Your task to perform on an android device: Open network settings Image 0: 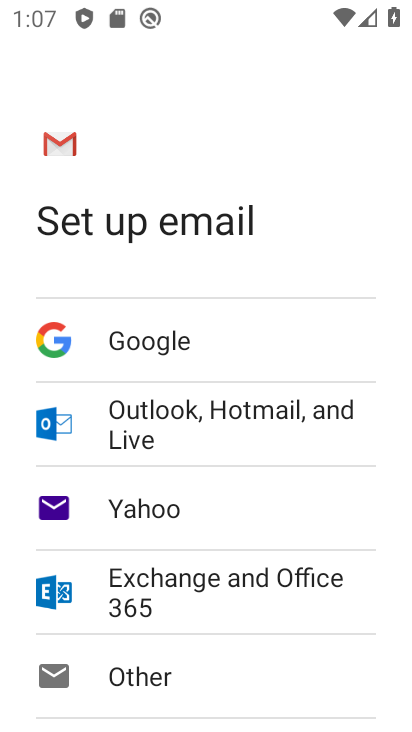
Step 0: press home button
Your task to perform on an android device: Open network settings Image 1: 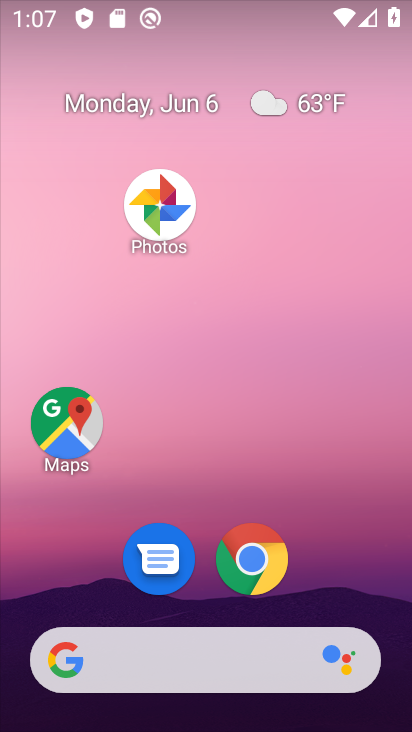
Step 1: drag from (341, 562) to (353, 127)
Your task to perform on an android device: Open network settings Image 2: 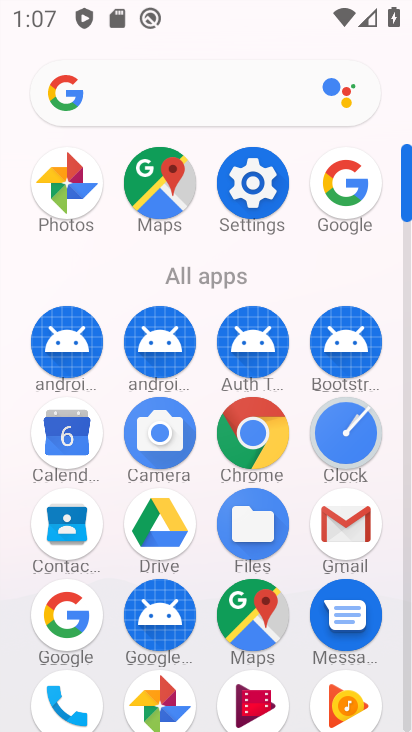
Step 2: drag from (261, 187) to (135, 209)
Your task to perform on an android device: Open network settings Image 3: 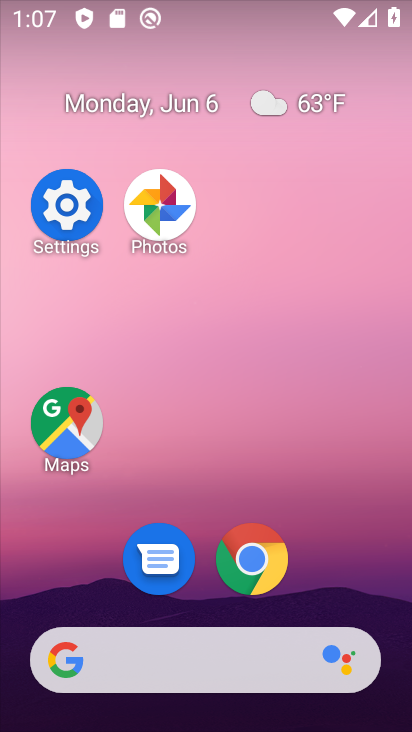
Step 3: click (74, 203)
Your task to perform on an android device: Open network settings Image 4: 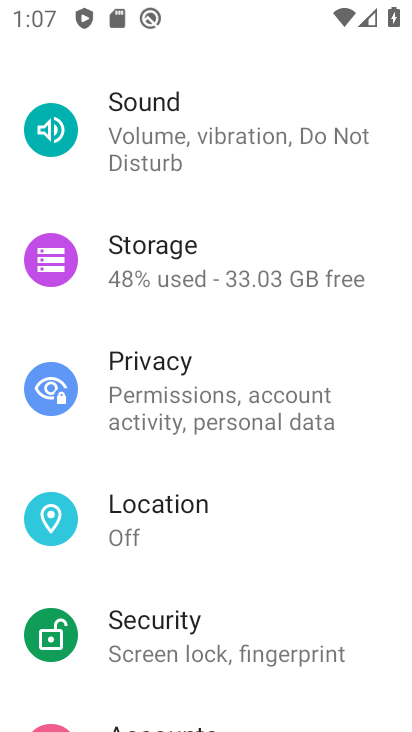
Step 4: drag from (280, 162) to (269, 585)
Your task to perform on an android device: Open network settings Image 5: 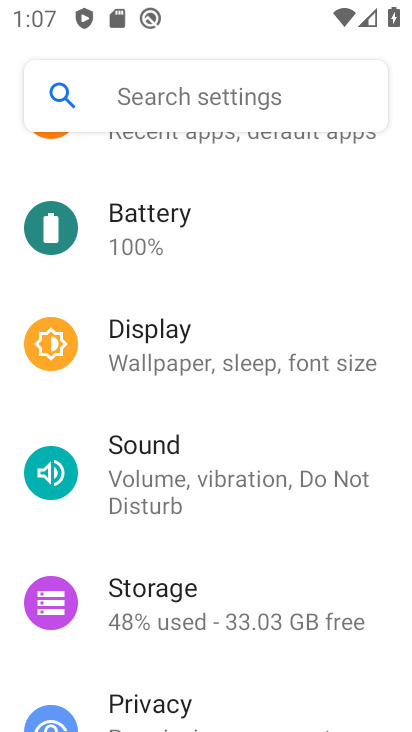
Step 5: drag from (352, 198) to (296, 468)
Your task to perform on an android device: Open network settings Image 6: 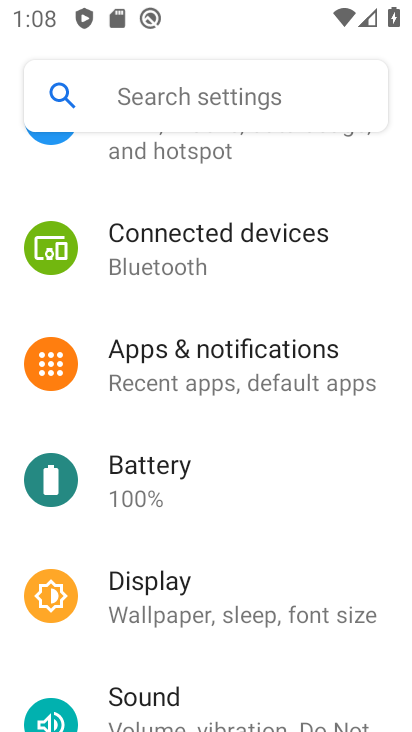
Step 6: drag from (331, 231) to (291, 537)
Your task to perform on an android device: Open network settings Image 7: 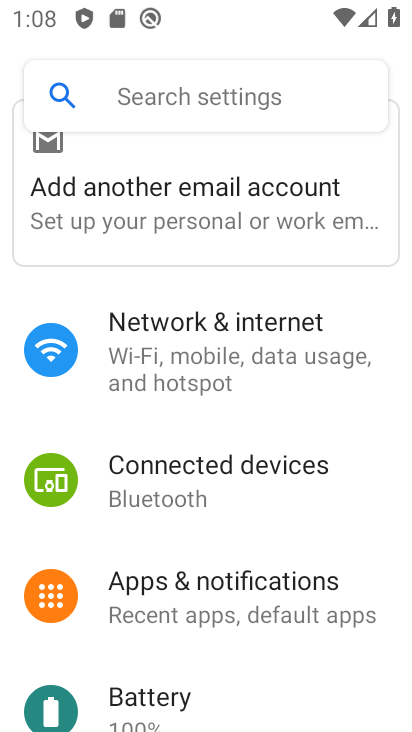
Step 7: click (264, 356)
Your task to perform on an android device: Open network settings Image 8: 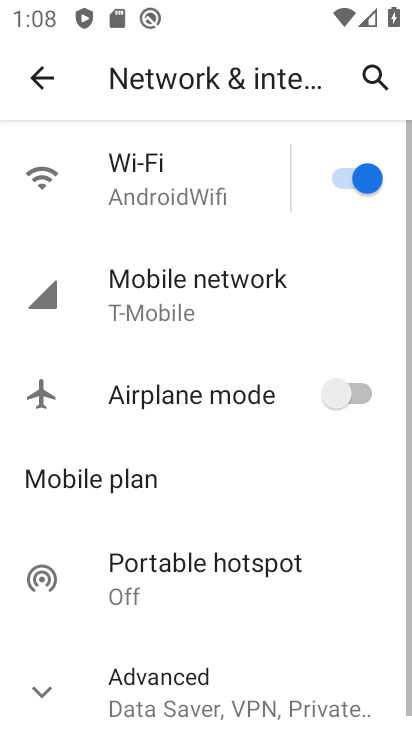
Step 8: task complete